Your task to perform on an android device: open sync settings in chrome Image 0: 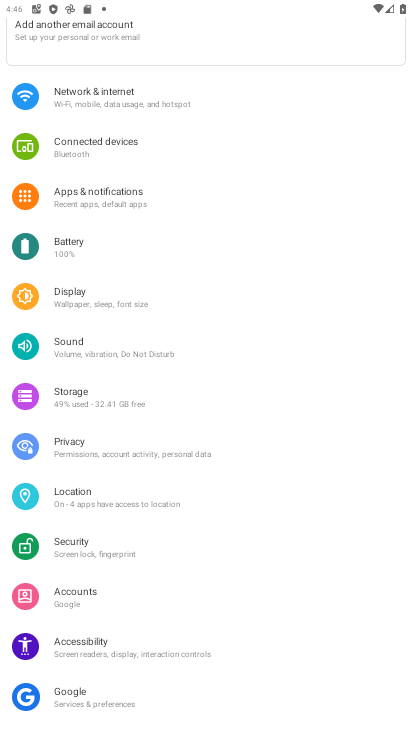
Step 0: press home button
Your task to perform on an android device: open sync settings in chrome Image 1: 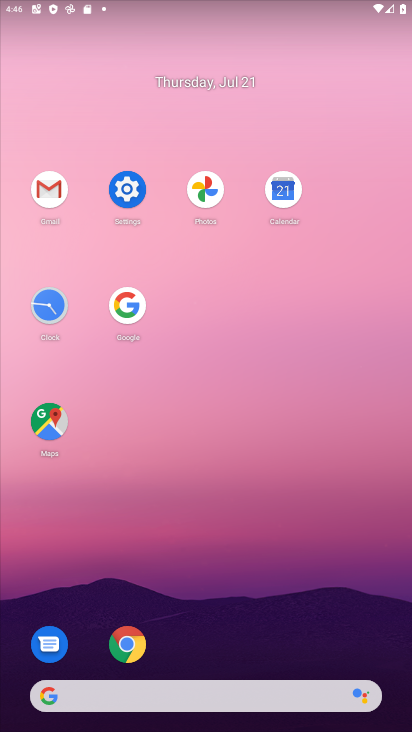
Step 1: click (125, 642)
Your task to perform on an android device: open sync settings in chrome Image 2: 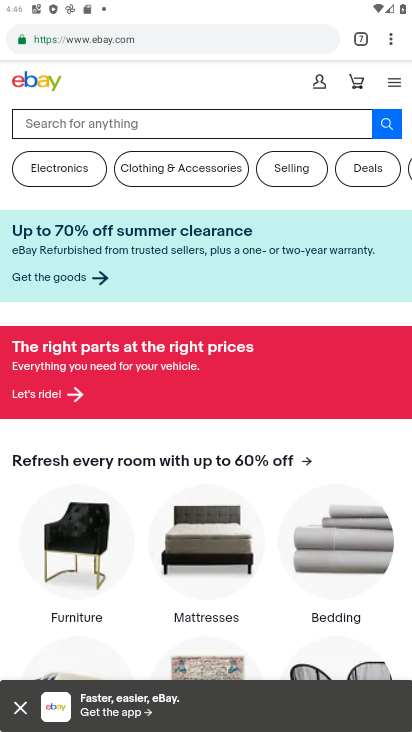
Step 2: click (390, 37)
Your task to perform on an android device: open sync settings in chrome Image 3: 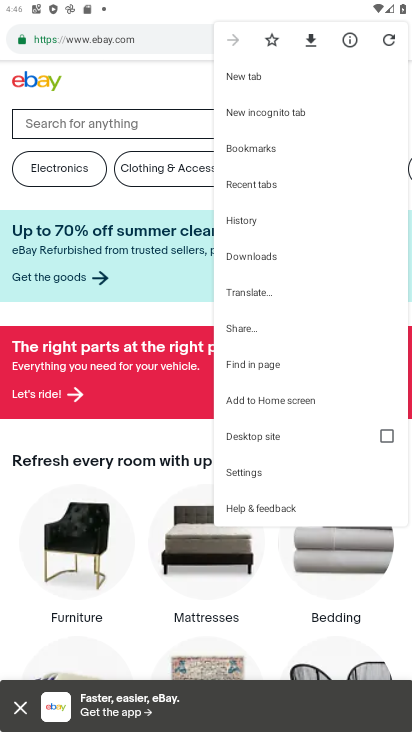
Step 3: click (257, 472)
Your task to perform on an android device: open sync settings in chrome Image 4: 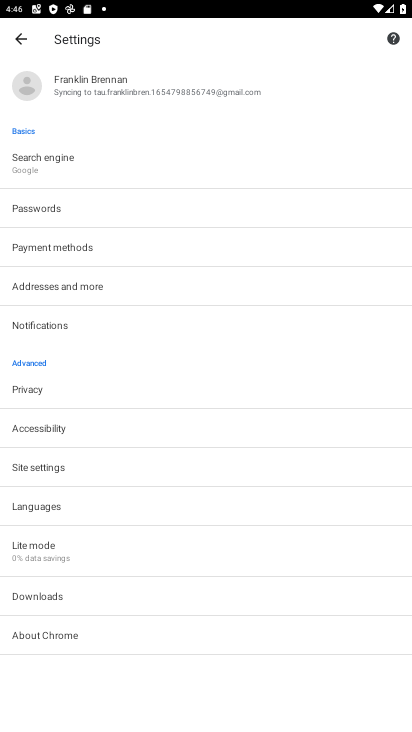
Step 4: click (117, 465)
Your task to perform on an android device: open sync settings in chrome Image 5: 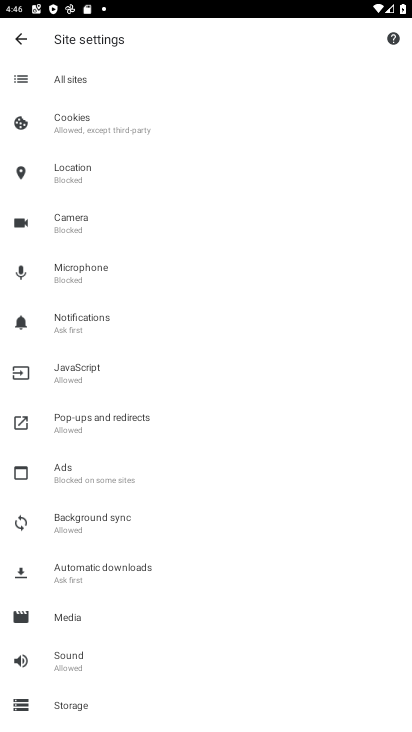
Step 5: click (122, 523)
Your task to perform on an android device: open sync settings in chrome Image 6: 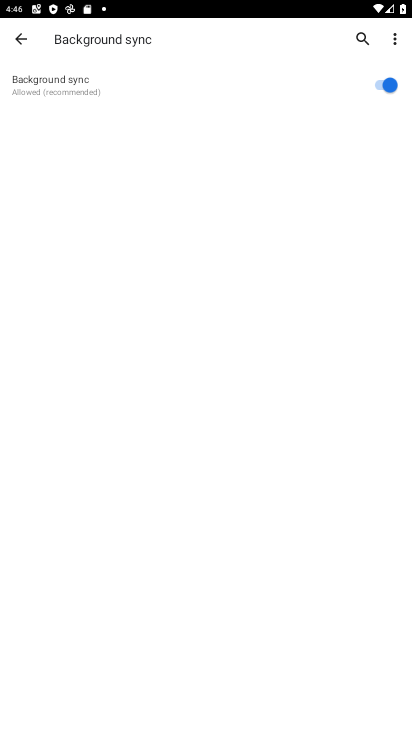
Step 6: task complete